Your task to perform on an android device: What is the news today? Image 0: 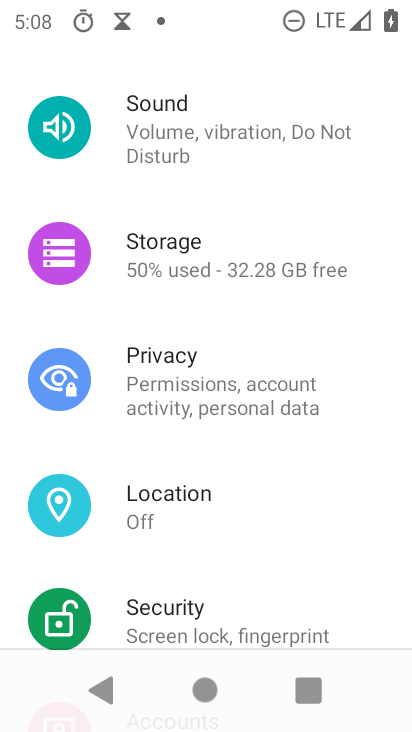
Step 0: press home button
Your task to perform on an android device: What is the news today? Image 1: 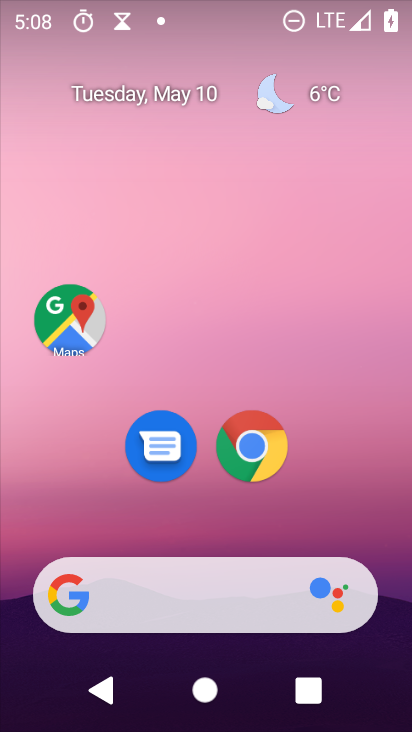
Step 1: drag from (216, 531) to (196, 106)
Your task to perform on an android device: What is the news today? Image 2: 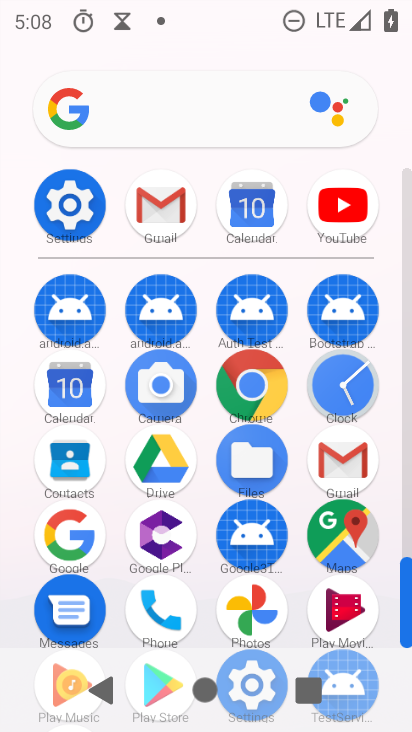
Step 2: click (65, 539)
Your task to perform on an android device: What is the news today? Image 3: 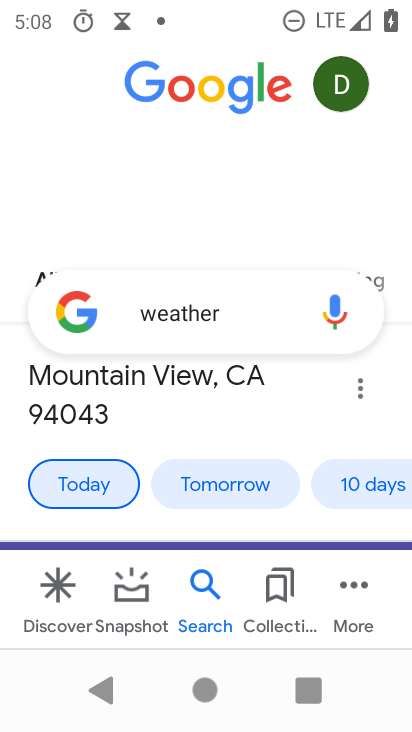
Step 3: click (235, 324)
Your task to perform on an android device: What is the news today? Image 4: 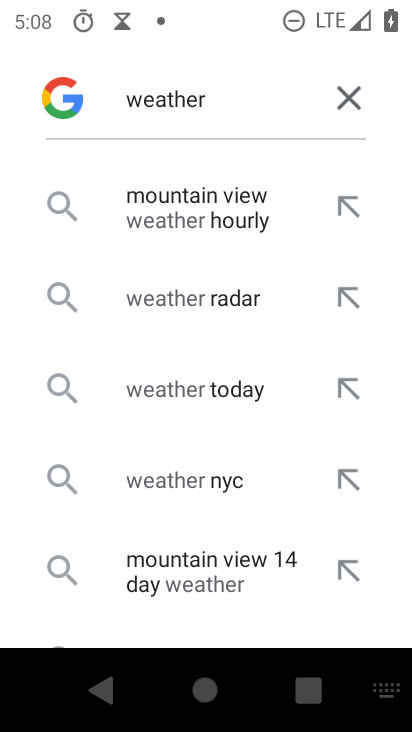
Step 4: click (342, 100)
Your task to perform on an android device: What is the news today? Image 5: 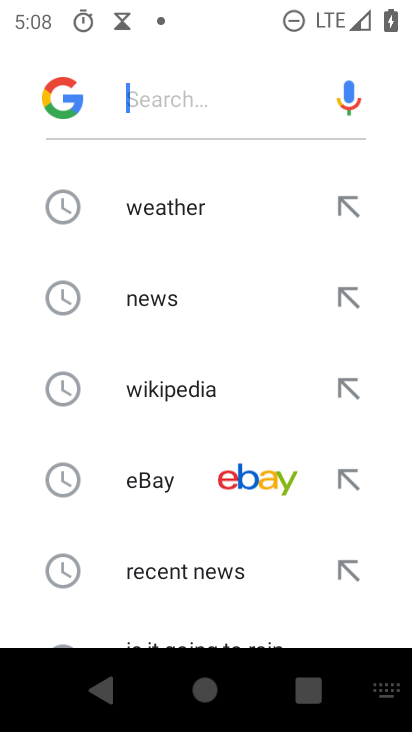
Step 5: click (168, 306)
Your task to perform on an android device: What is the news today? Image 6: 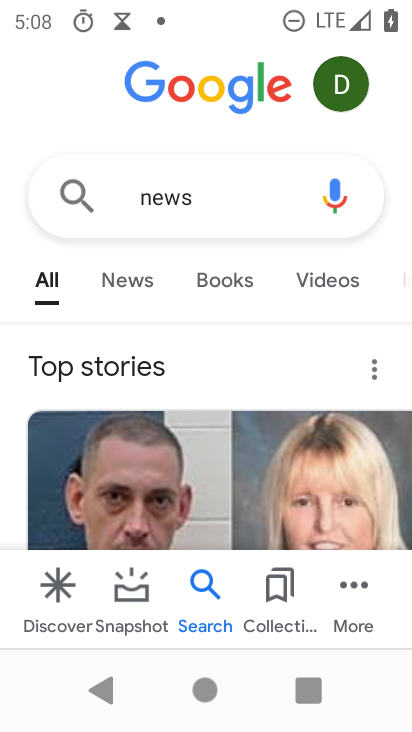
Step 6: task complete